Your task to perform on an android device: What is the capital of China? Image 0: 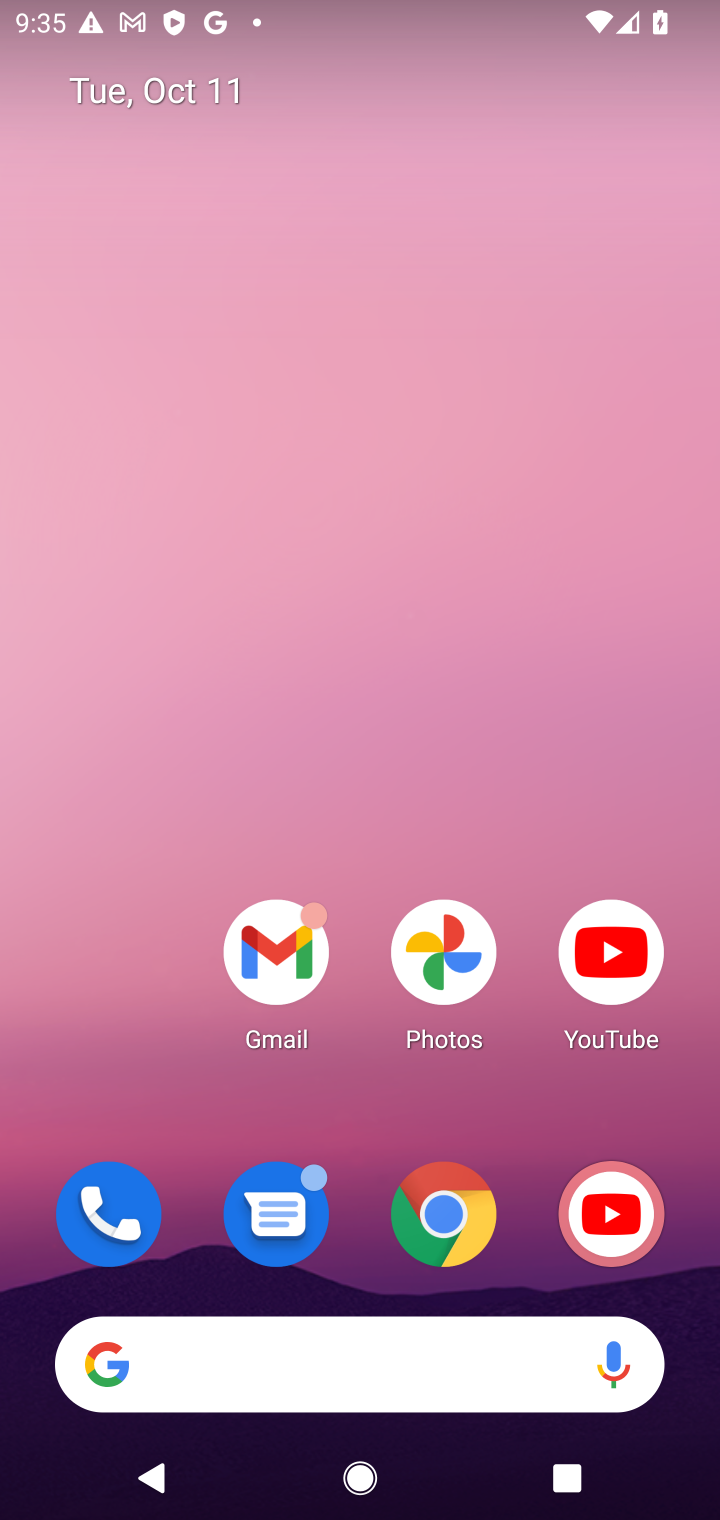
Step 0: drag from (328, 1169) to (336, 119)
Your task to perform on an android device: What is the capital of China? Image 1: 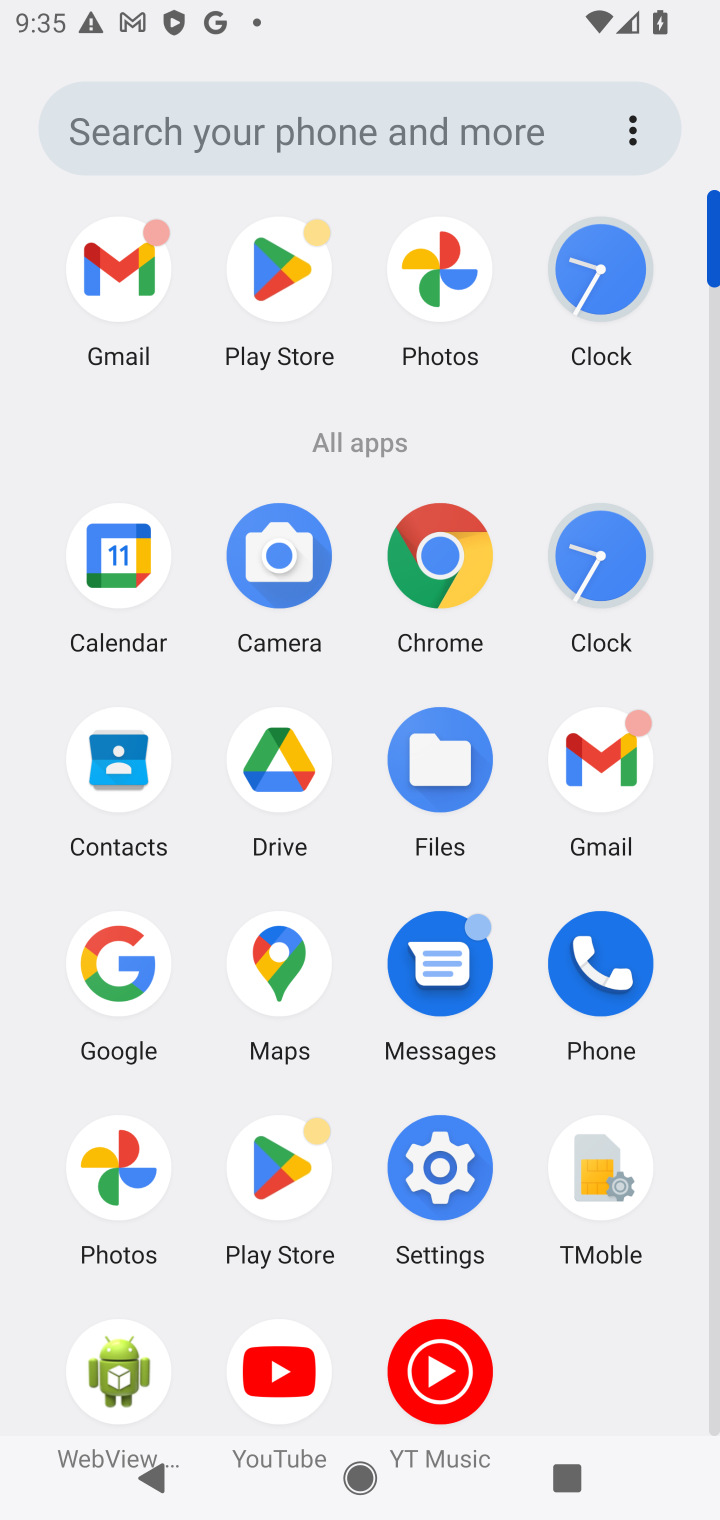
Step 1: click (456, 566)
Your task to perform on an android device: What is the capital of China? Image 2: 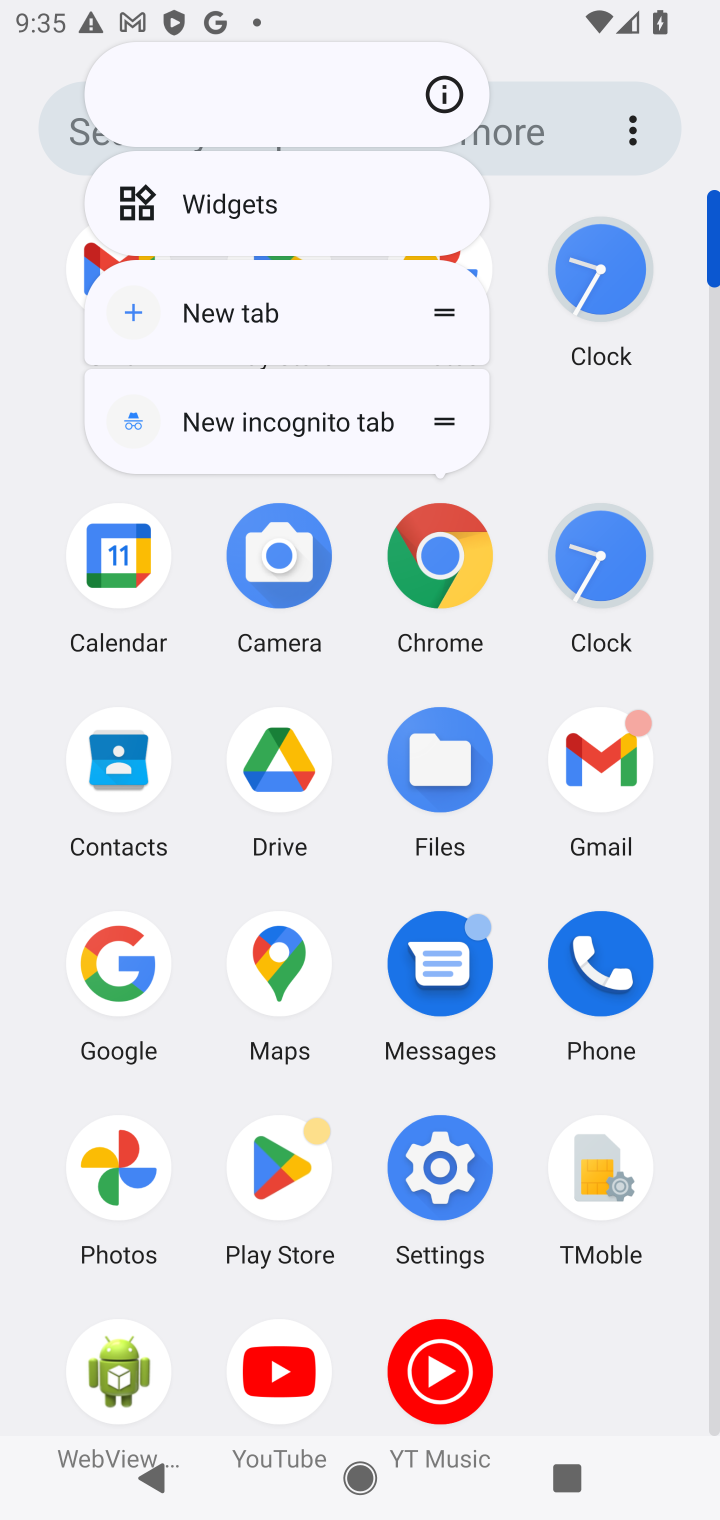
Step 2: click (434, 559)
Your task to perform on an android device: What is the capital of China? Image 3: 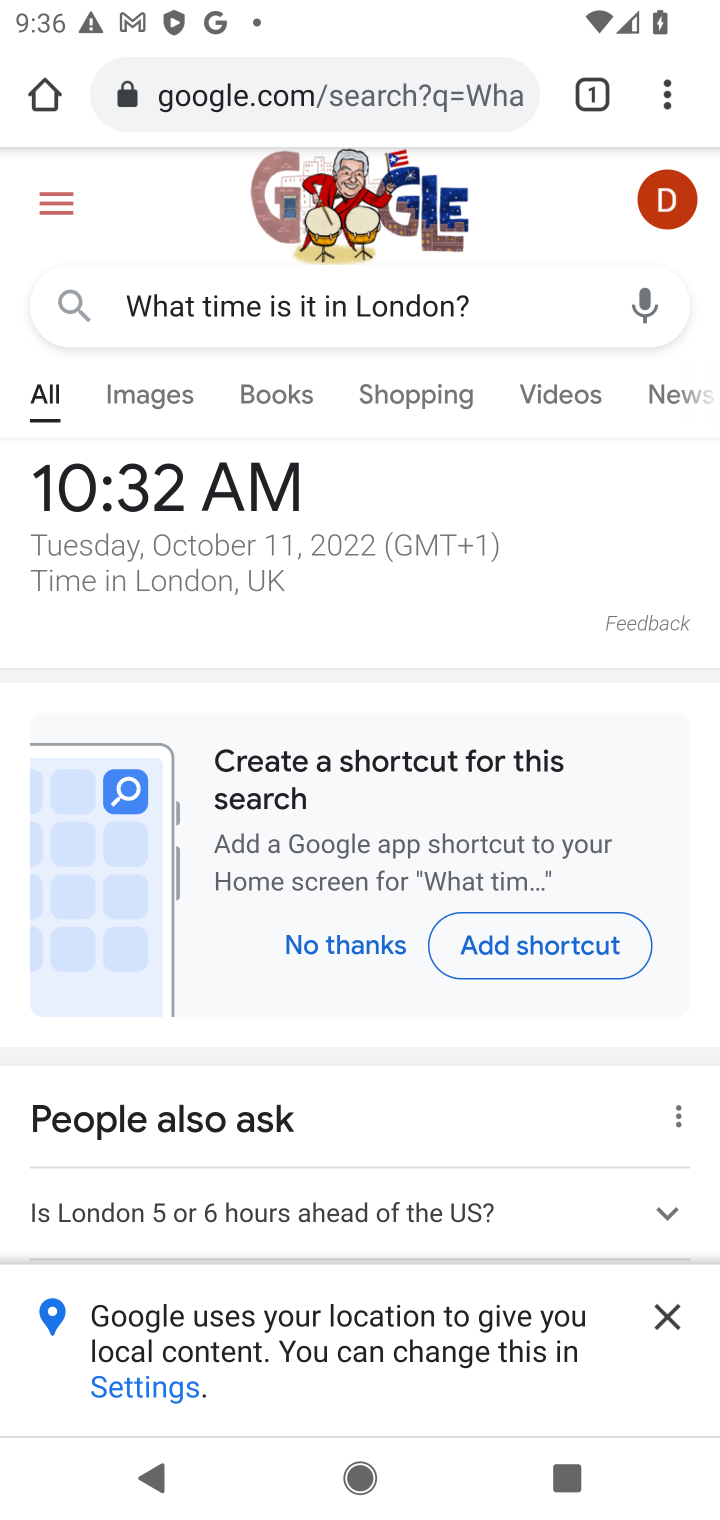
Step 3: click (363, 90)
Your task to perform on an android device: What is the capital of China? Image 4: 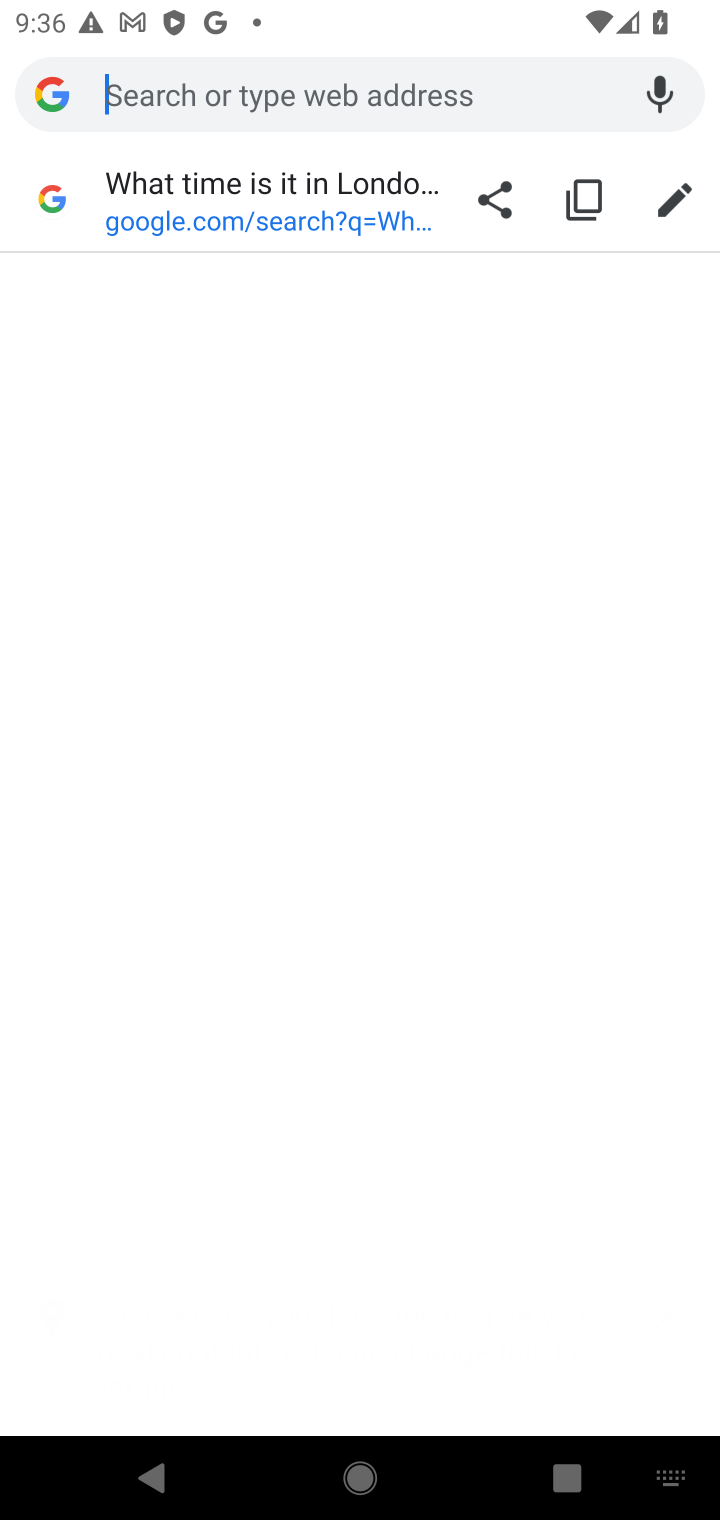
Step 4: type "What is the capital of China?"
Your task to perform on an android device: What is the capital of China? Image 5: 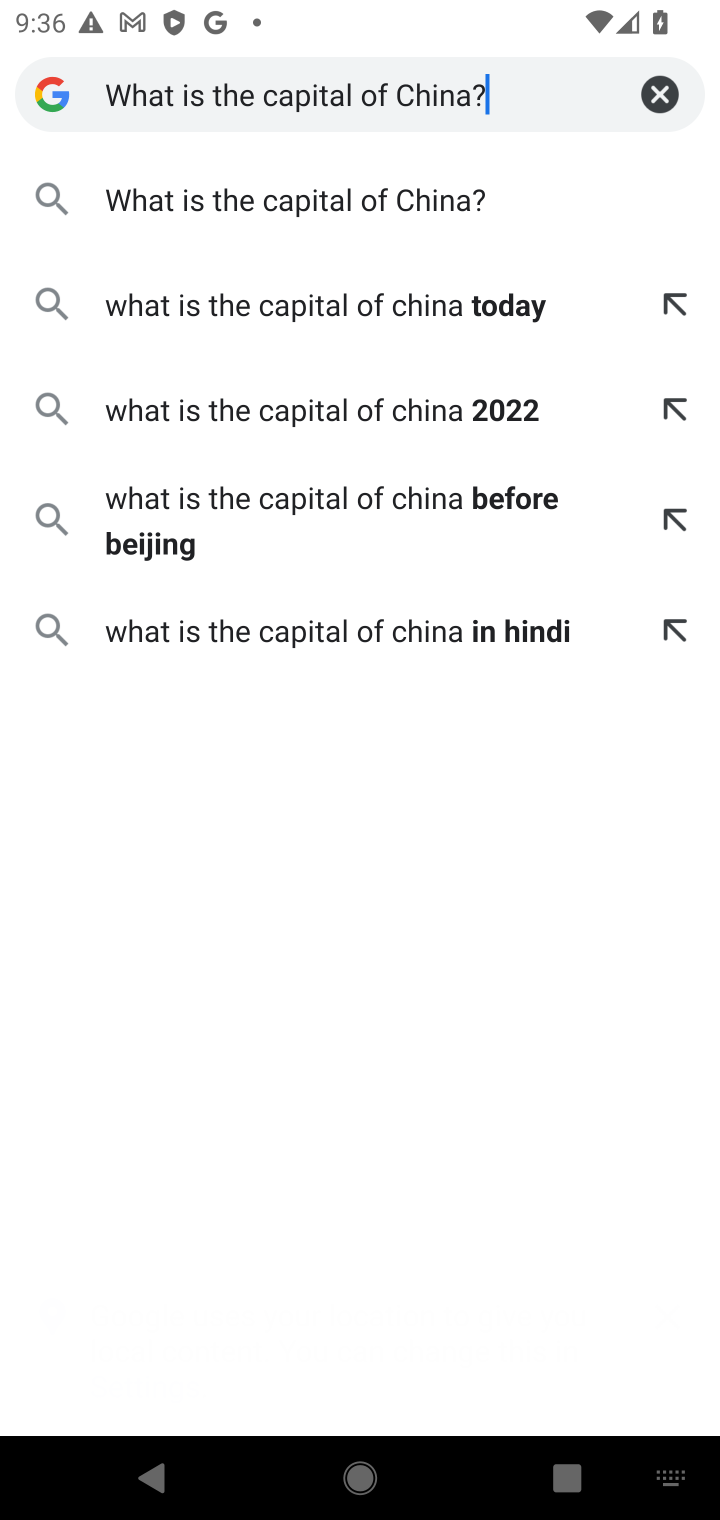
Step 5: press enter
Your task to perform on an android device: What is the capital of China? Image 6: 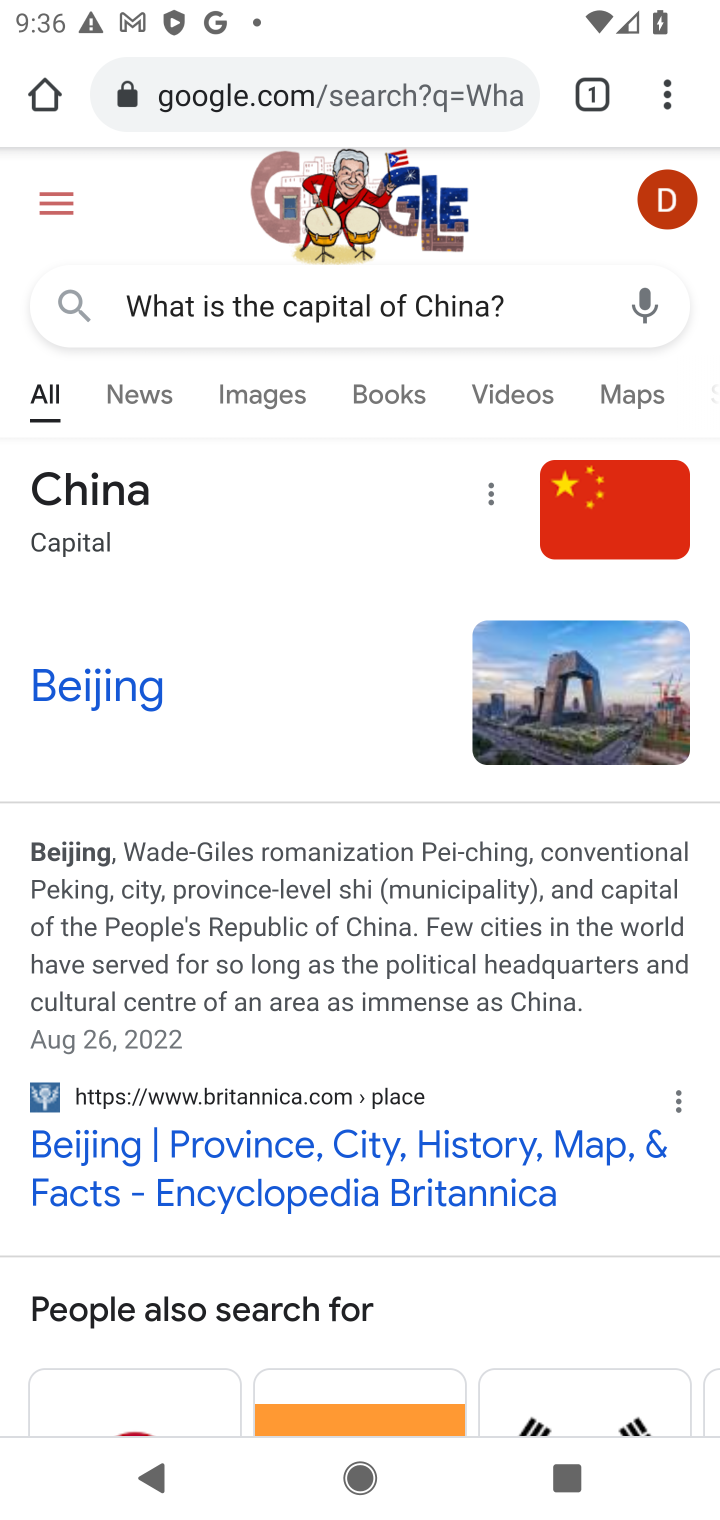
Step 6: task complete